Your task to perform on an android device: Set the phone to "Do not disturb". Image 0: 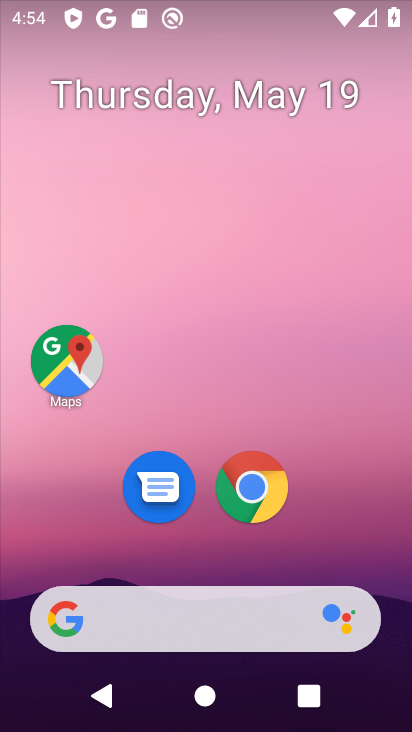
Step 0: drag from (338, 533) to (257, 139)
Your task to perform on an android device: Set the phone to "Do not disturb". Image 1: 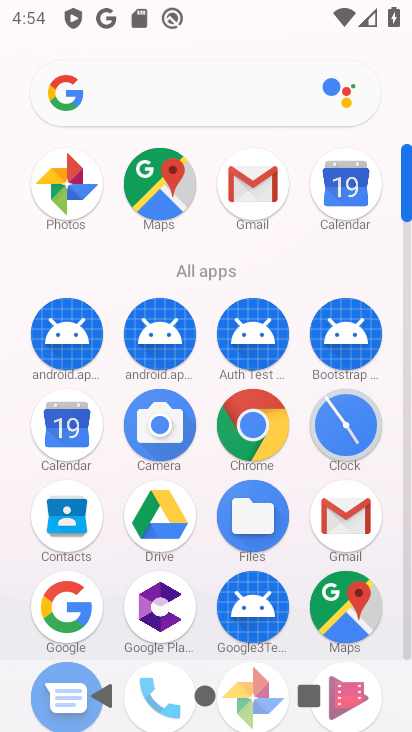
Step 1: drag from (300, 476) to (288, 259)
Your task to perform on an android device: Set the phone to "Do not disturb". Image 2: 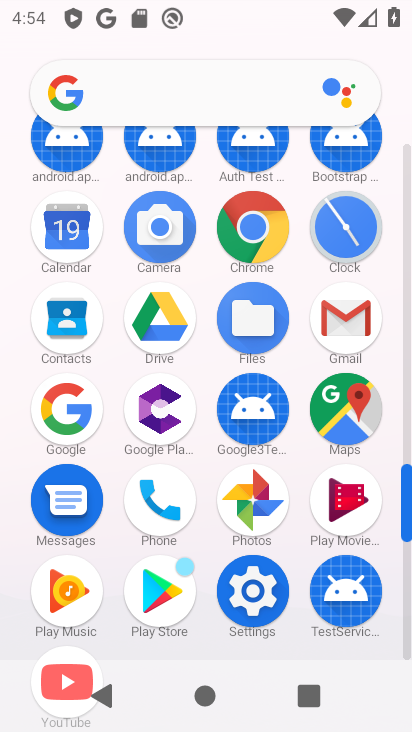
Step 2: click (255, 589)
Your task to perform on an android device: Set the phone to "Do not disturb". Image 3: 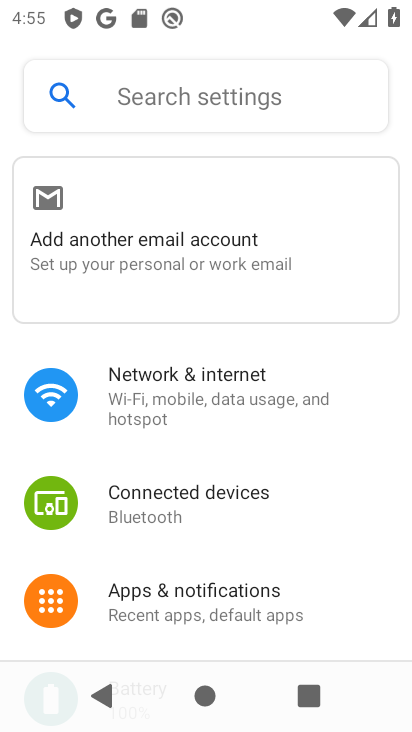
Step 3: drag from (218, 537) to (279, 431)
Your task to perform on an android device: Set the phone to "Do not disturb". Image 4: 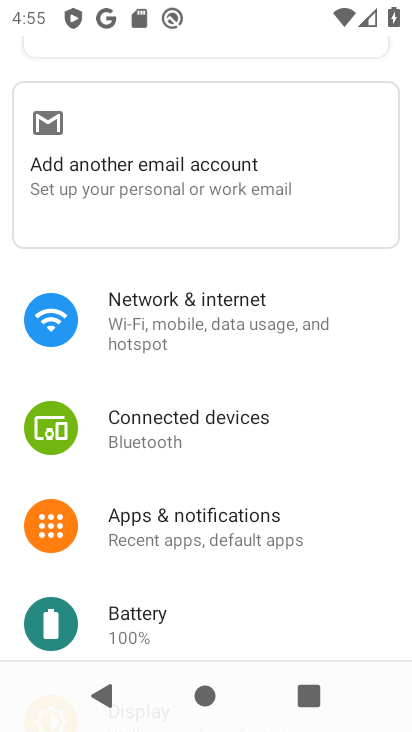
Step 4: drag from (203, 594) to (290, 466)
Your task to perform on an android device: Set the phone to "Do not disturb". Image 5: 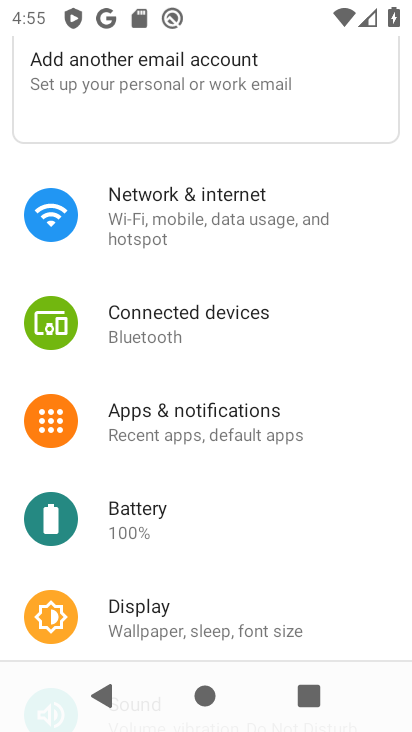
Step 5: drag from (242, 555) to (330, 402)
Your task to perform on an android device: Set the phone to "Do not disturb". Image 6: 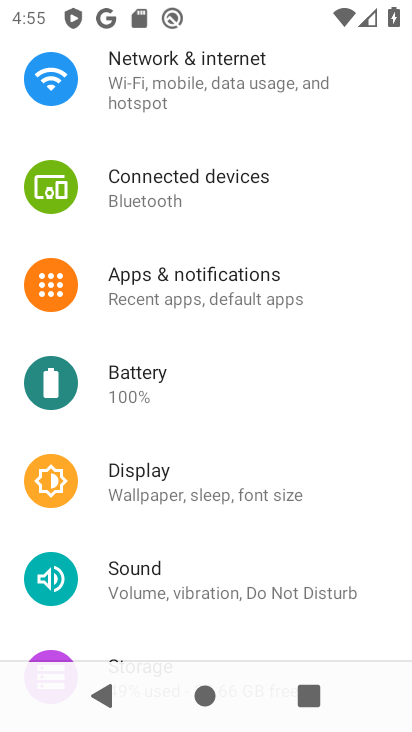
Step 6: click (230, 593)
Your task to perform on an android device: Set the phone to "Do not disturb". Image 7: 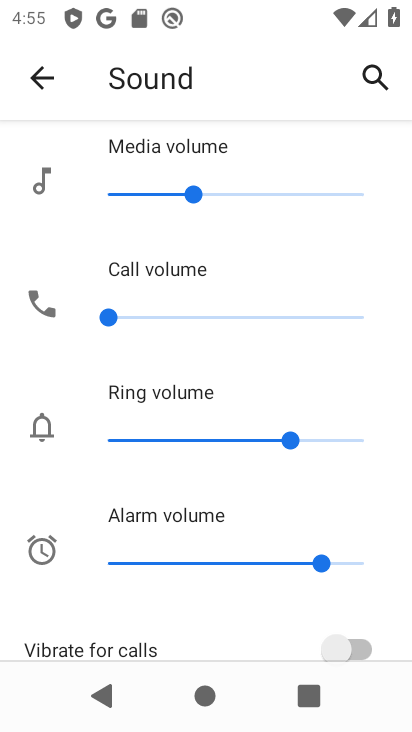
Step 7: drag from (178, 595) to (268, 400)
Your task to perform on an android device: Set the phone to "Do not disturb". Image 8: 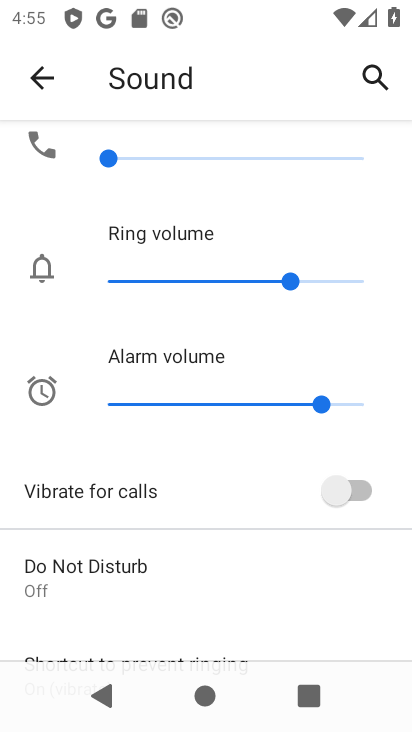
Step 8: click (134, 567)
Your task to perform on an android device: Set the phone to "Do not disturb". Image 9: 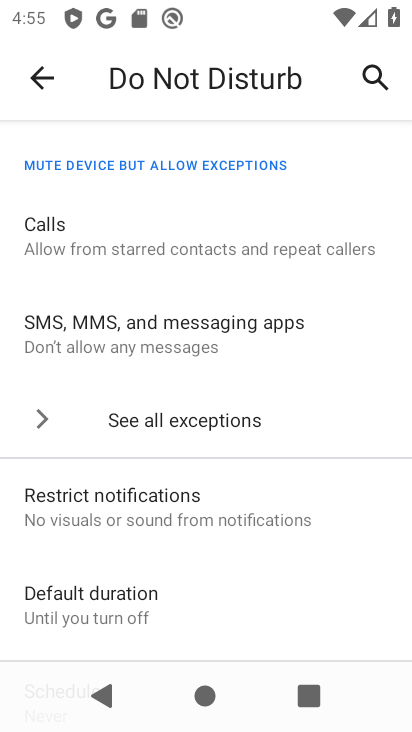
Step 9: drag from (194, 611) to (257, 451)
Your task to perform on an android device: Set the phone to "Do not disturb". Image 10: 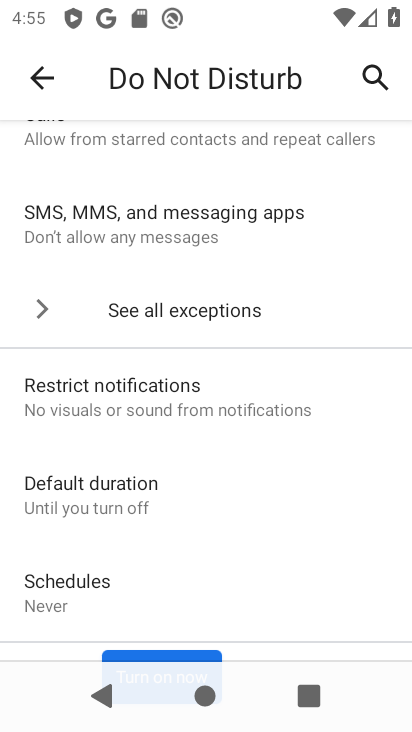
Step 10: drag from (228, 556) to (262, 410)
Your task to perform on an android device: Set the phone to "Do not disturb". Image 11: 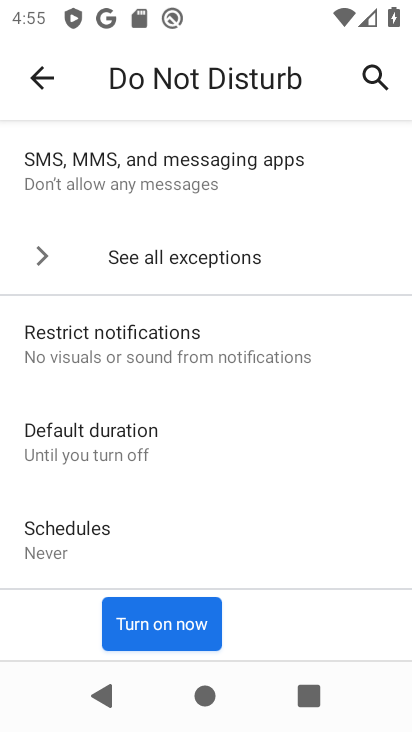
Step 11: click (143, 622)
Your task to perform on an android device: Set the phone to "Do not disturb". Image 12: 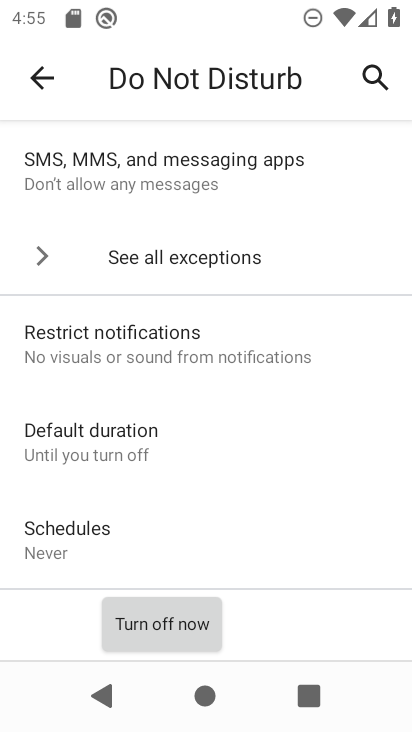
Step 12: task complete